Your task to perform on an android device: Open settings Image 0: 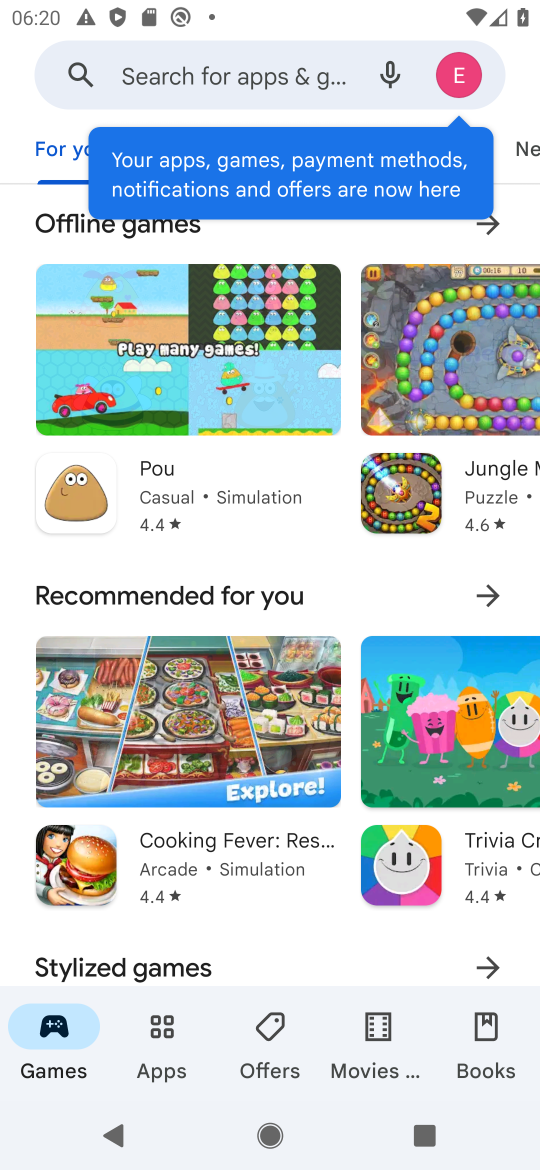
Step 0: press home button
Your task to perform on an android device: Open settings Image 1: 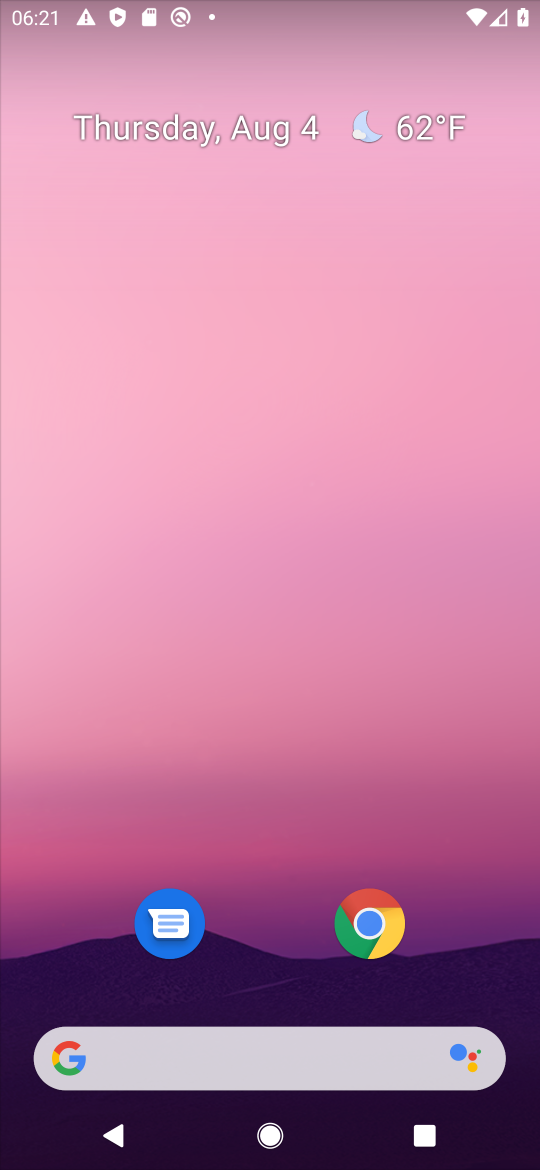
Step 1: drag from (481, 928) to (391, 238)
Your task to perform on an android device: Open settings Image 2: 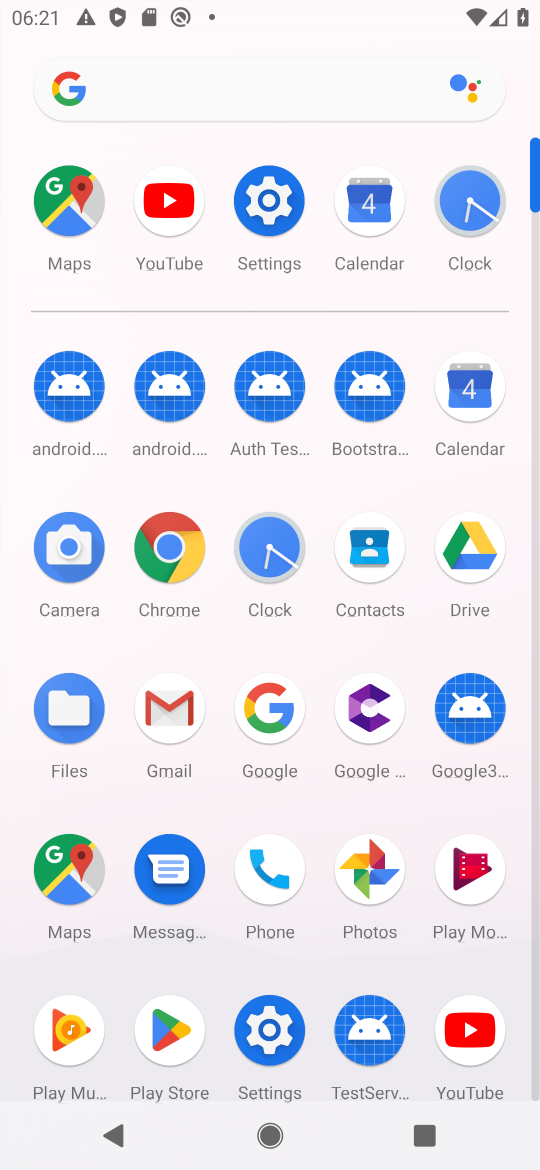
Step 2: click (248, 1035)
Your task to perform on an android device: Open settings Image 3: 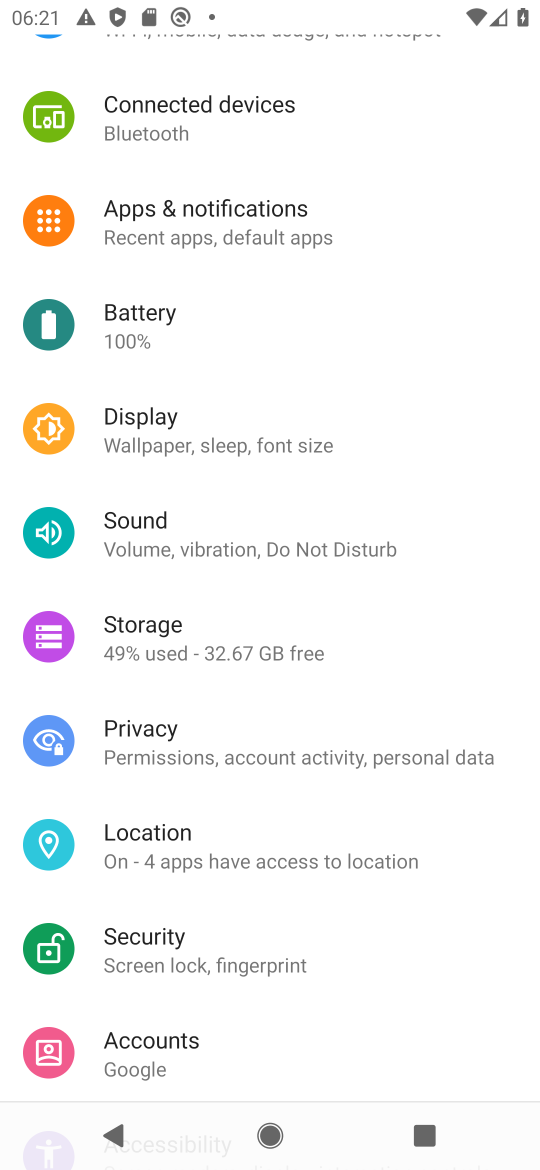
Step 3: task complete